Your task to perform on an android device: Add "corsair k70" to the cart on newegg.com, then select checkout. Image 0: 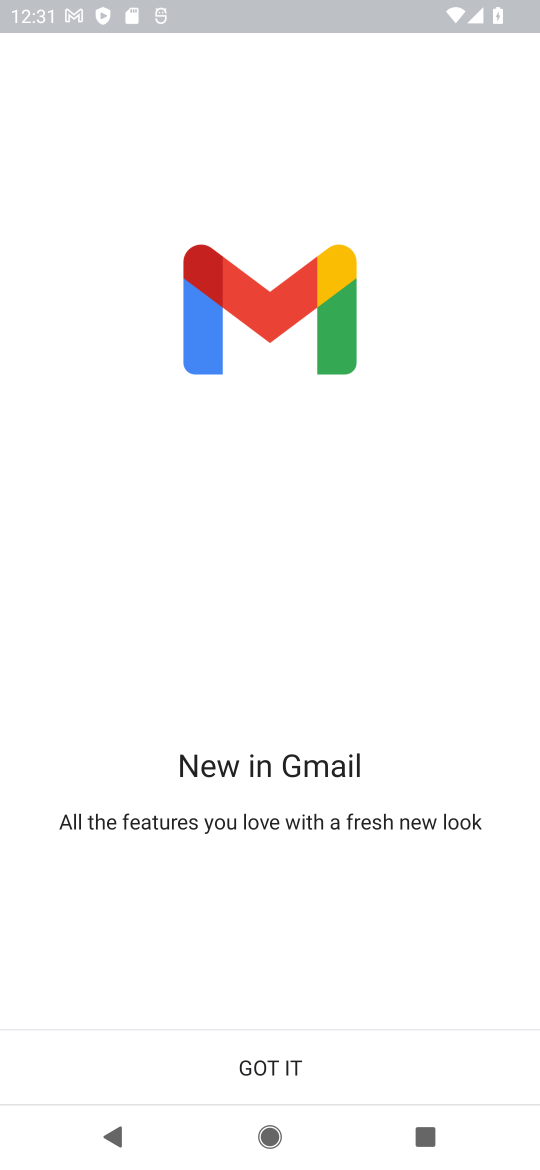
Step 0: press home button
Your task to perform on an android device: Add "corsair k70" to the cart on newegg.com, then select checkout. Image 1: 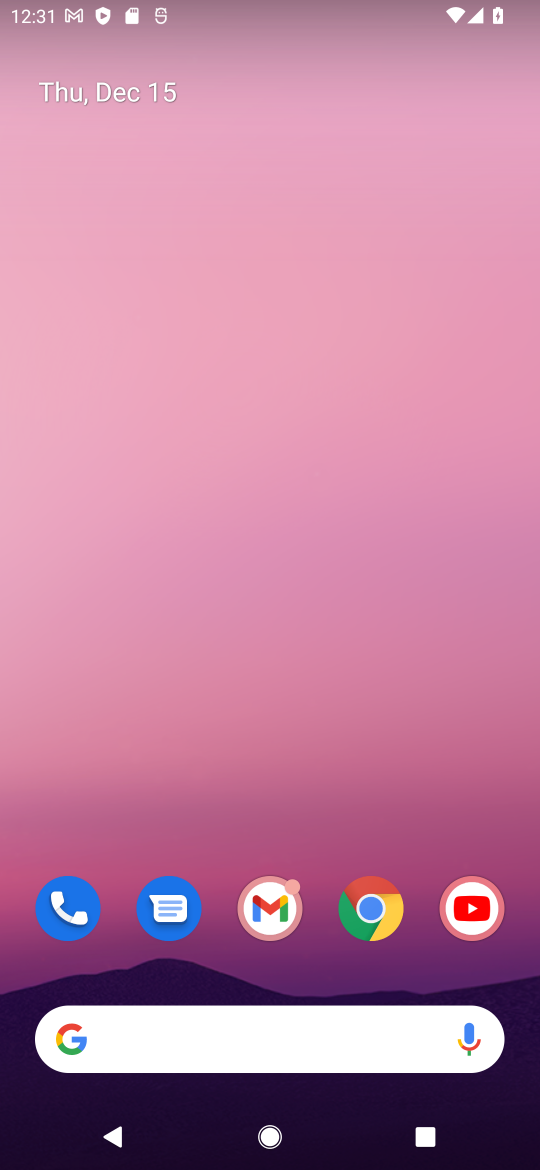
Step 1: click (364, 916)
Your task to perform on an android device: Add "corsair k70" to the cart on newegg.com, then select checkout. Image 2: 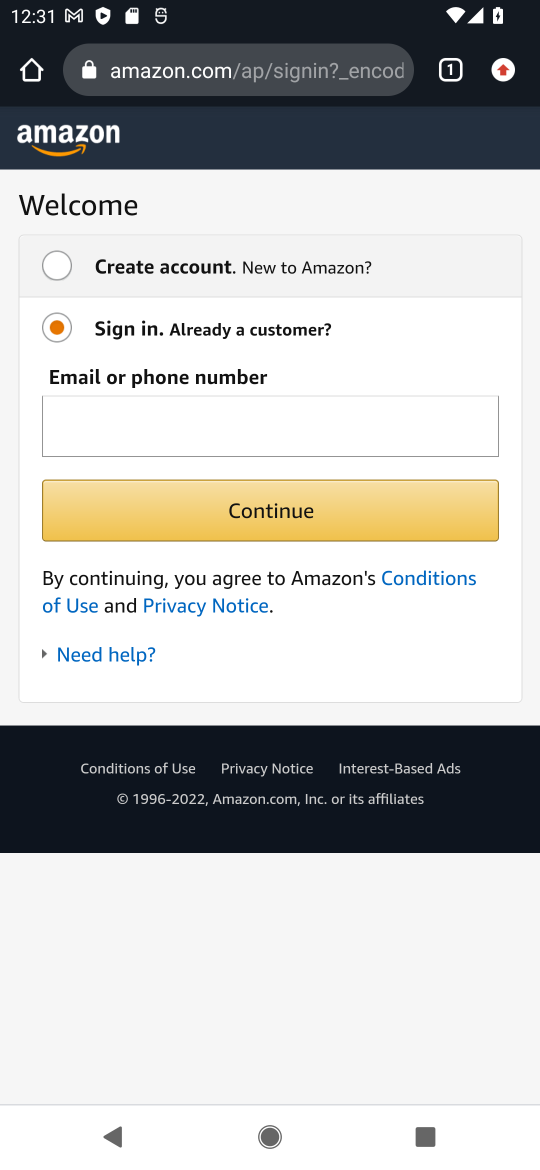
Step 2: click (212, 78)
Your task to perform on an android device: Add "corsair k70" to the cart on newegg.com, then select checkout. Image 3: 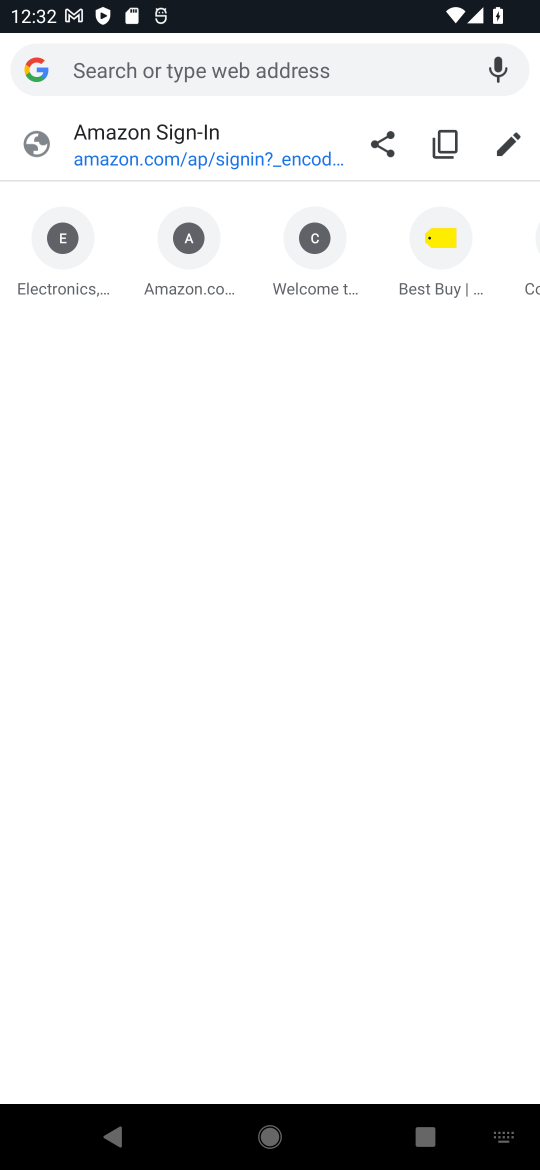
Step 3: type "newegg.com"
Your task to perform on an android device: Add "corsair k70" to the cart on newegg.com, then select checkout. Image 4: 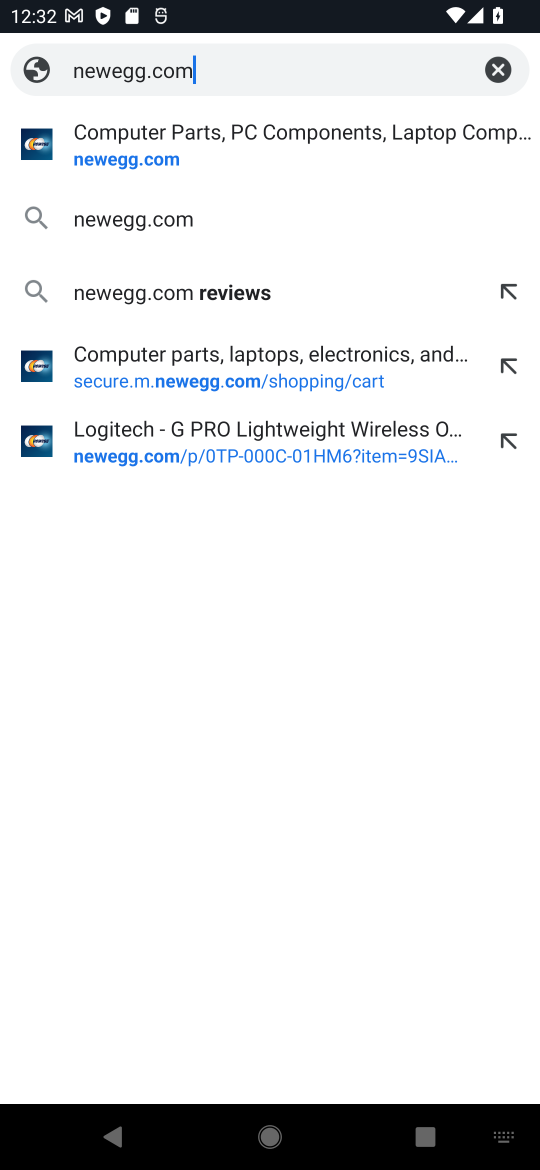
Step 4: click (88, 164)
Your task to perform on an android device: Add "corsair k70" to the cart on newegg.com, then select checkout. Image 5: 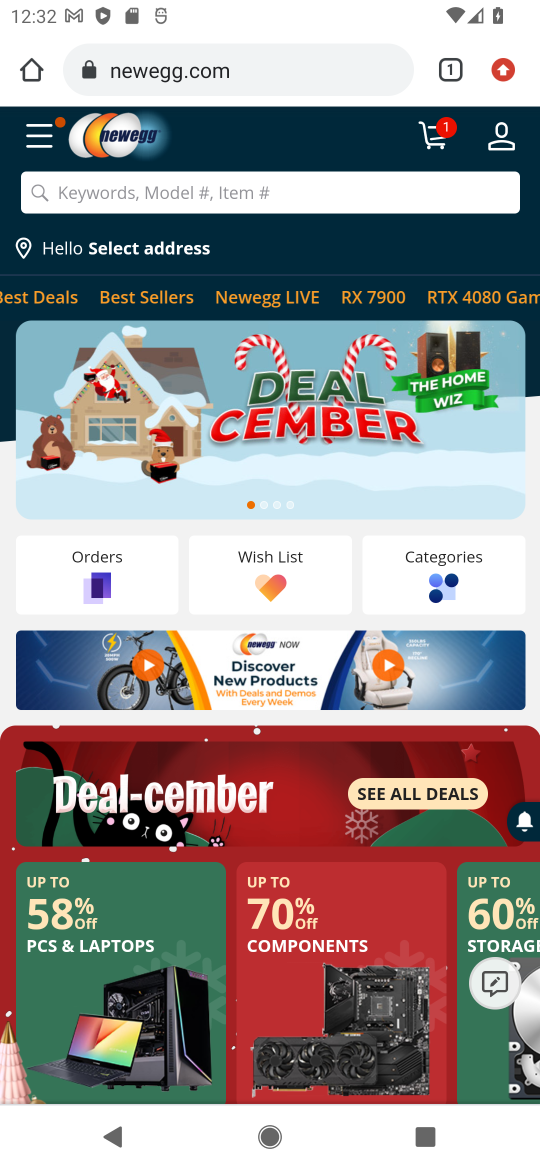
Step 5: click (216, 204)
Your task to perform on an android device: Add "corsair k70" to the cart on newegg.com, then select checkout. Image 6: 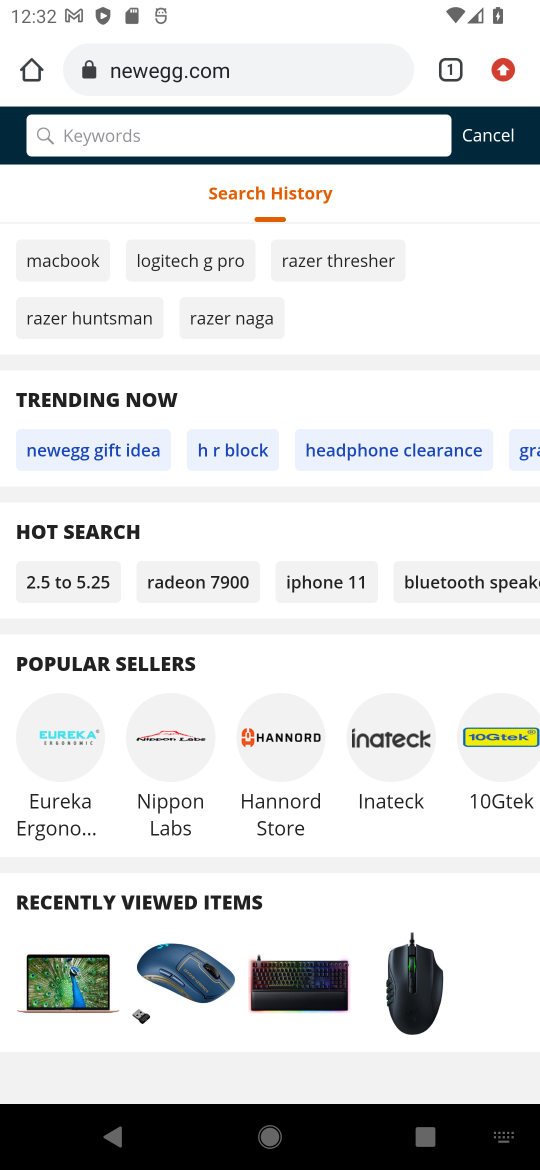
Step 6: type "corsair k70"
Your task to perform on an android device: Add "corsair k70" to the cart on newegg.com, then select checkout. Image 7: 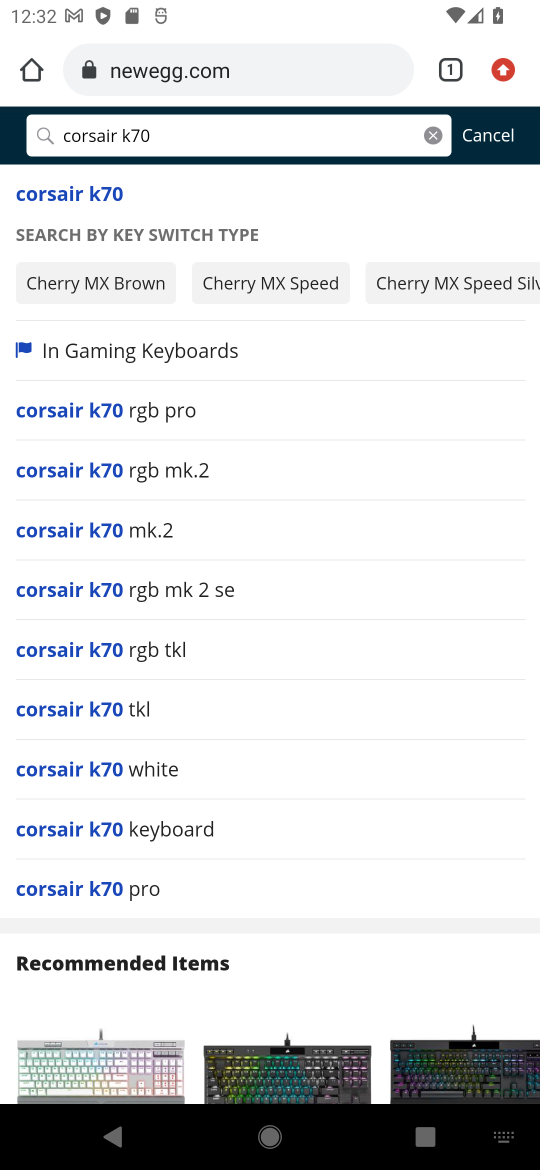
Step 7: click (94, 206)
Your task to perform on an android device: Add "corsair k70" to the cart on newegg.com, then select checkout. Image 8: 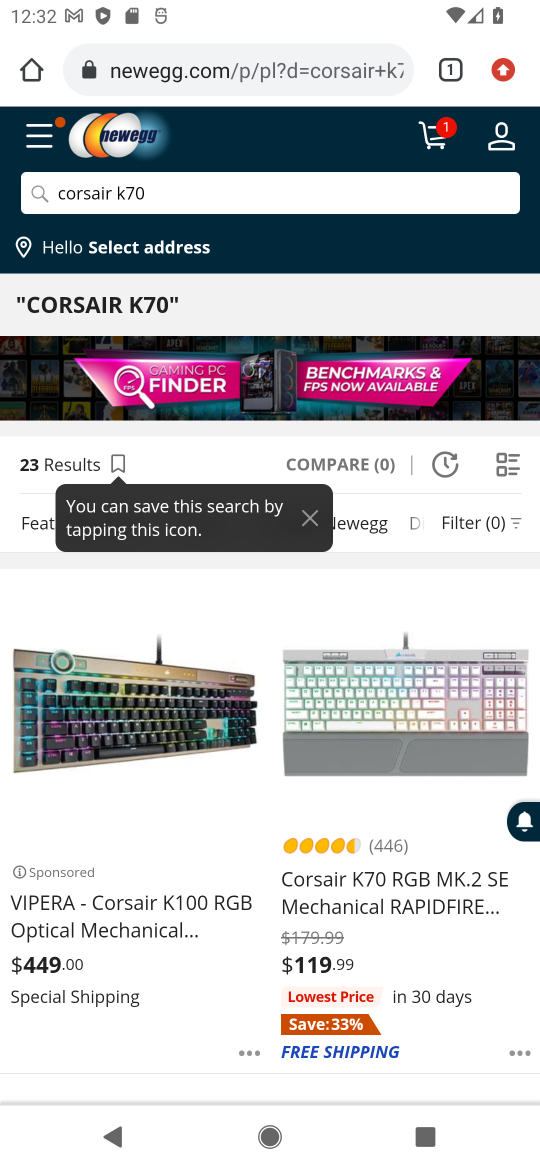
Step 8: drag from (220, 862) to (223, 680)
Your task to perform on an android device: Add "corsair k70" to the cart on newegg.com, then select checkout. Image 9: 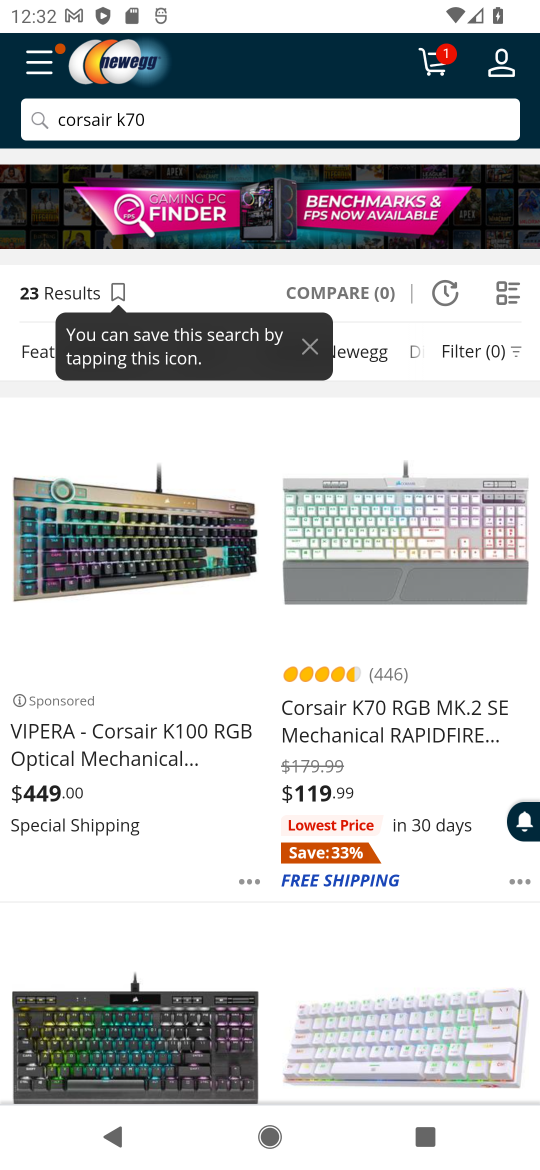
Step 9: click (400, 741)
Your task to perform on an android device: Add "corsair k70" to the cart on newegg.com, then select checkout. Image 10: 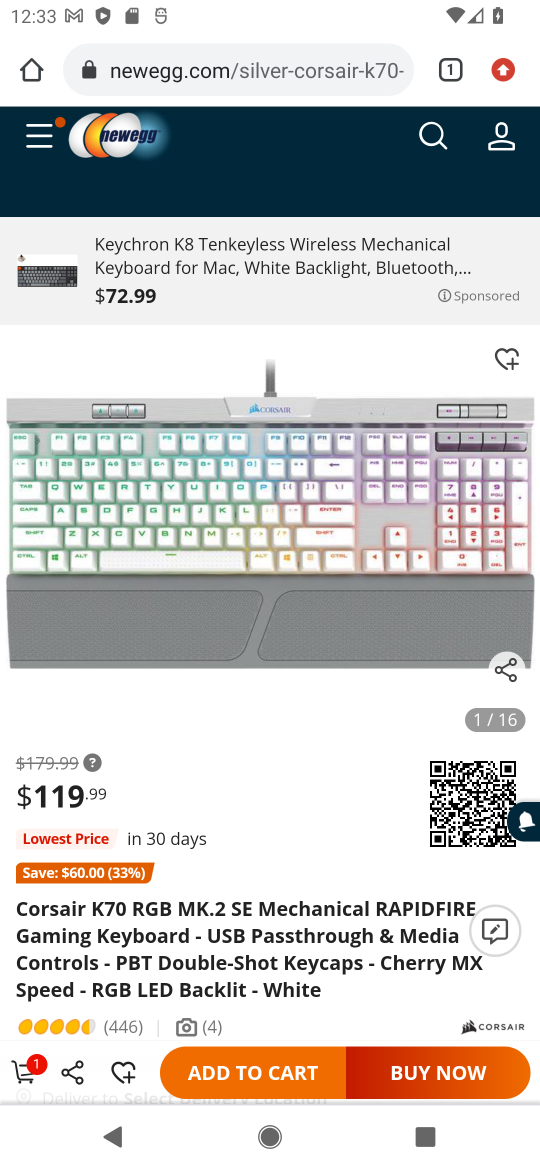
Step 10: click (237, 1067)
Your task to perform on an android device: Add "corsair k70" to the cart on newegg.com, then select checkout. Image 11: 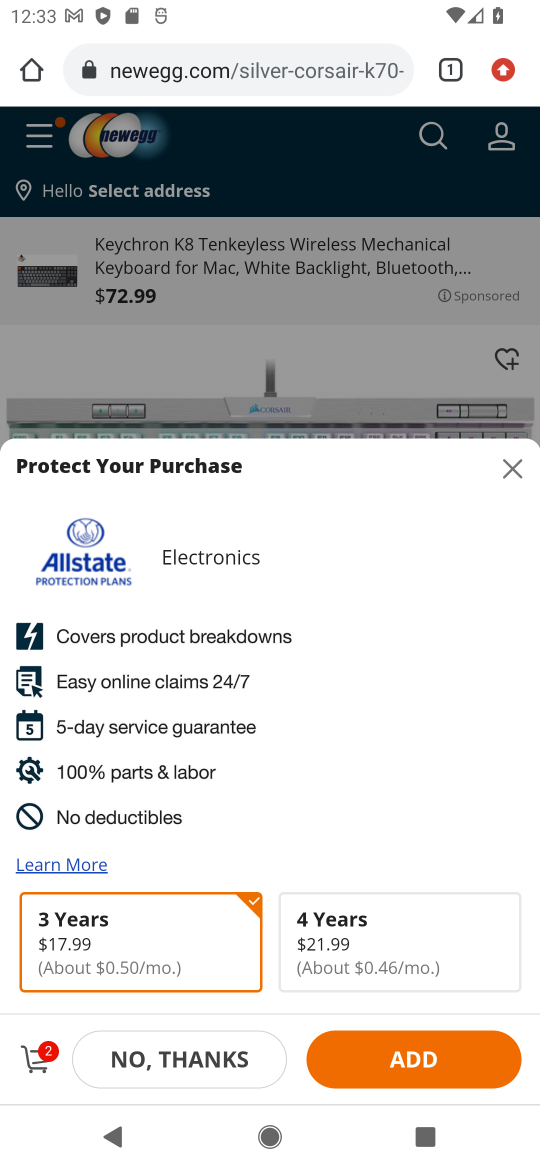
Step 11: click (33, 1063)
Your task to perform on an android device: Add "corsair k70" to the cart on newegg.com, then select checkout. Image 12: 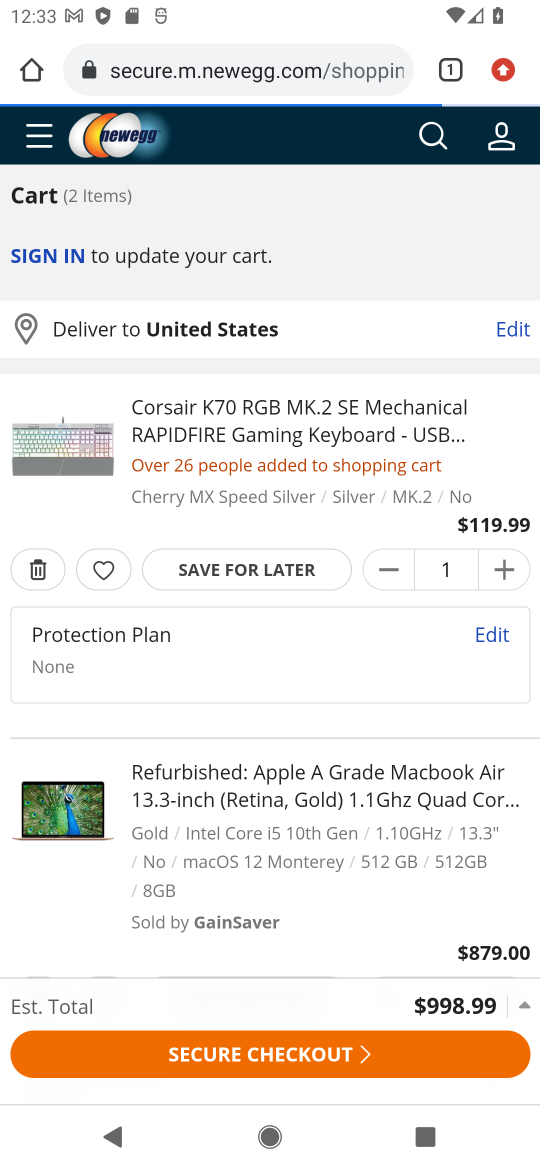
Step 12: click (89, 1048)
Your task to perform on an android device: Add "corsair k70" to the cart on newegg.com, then select checkout. Image 13: 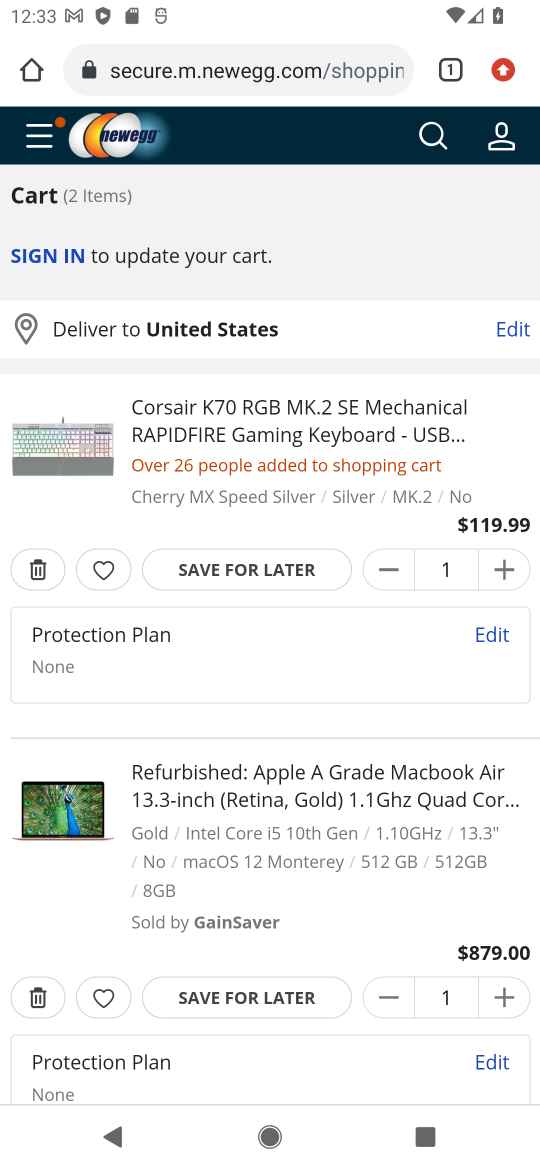
Step 13: drag from (215, 1010) to (229, 869)
Your task to perform on an android device: Add "corsair k70" to the cart on newegg.com, then select checkout. Image 14: 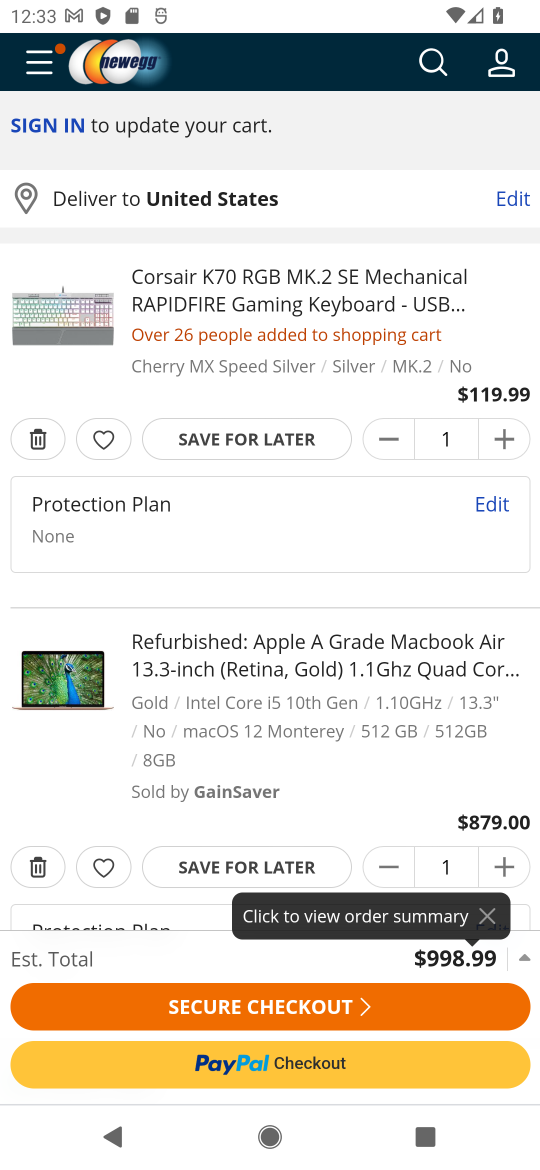
Step 14: click (222, 1000)
Your task to perform on an android device: Add "corsair k70" to the cart on newegg.com, then select checkout. Image 15: 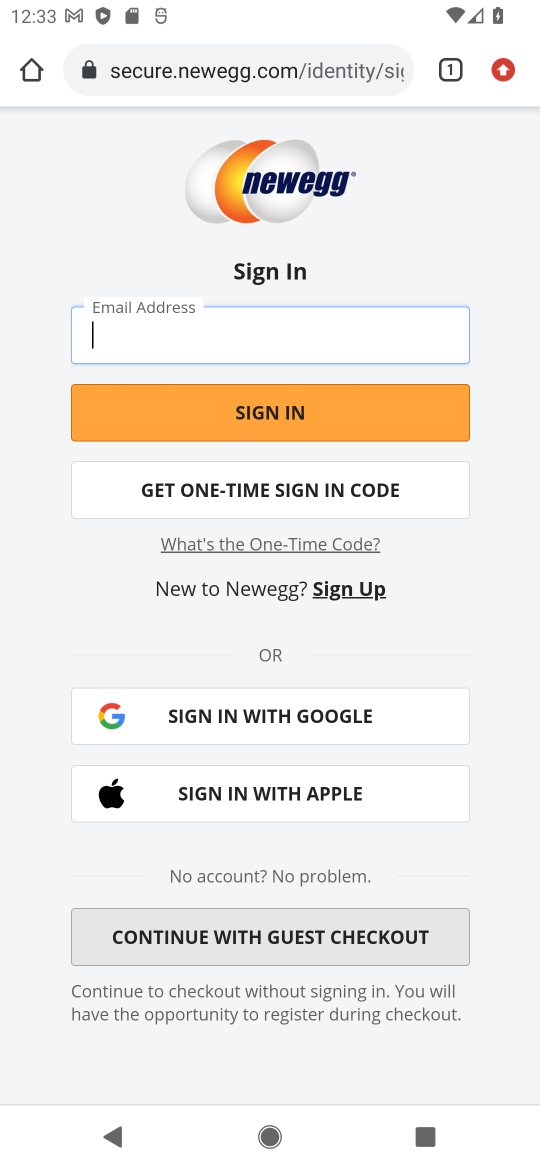
Step 15: task complete